Your task to perform on an android device: Open the map Image 0: 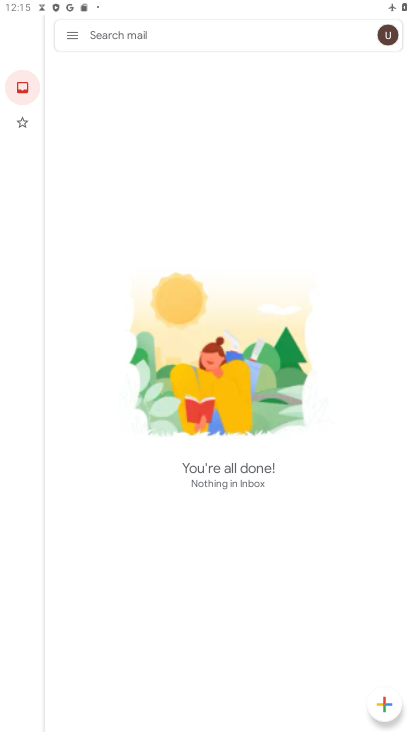
Step 0: press home button
Your task to perform on an android device: Open the map Image 1: 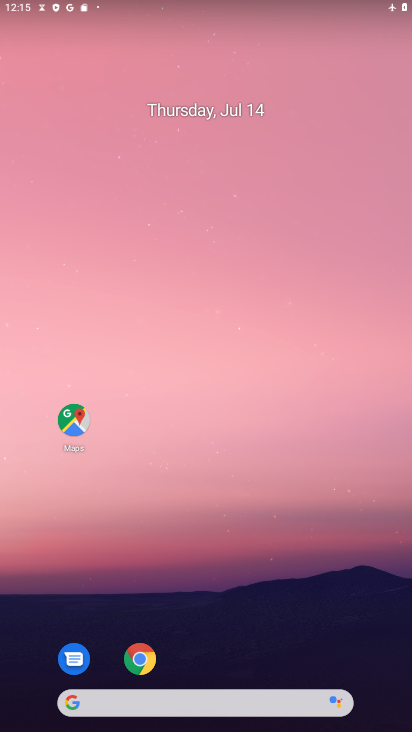
Step 1: click (75, 415)
Your task to perform on an android device: Open the map Image 2: 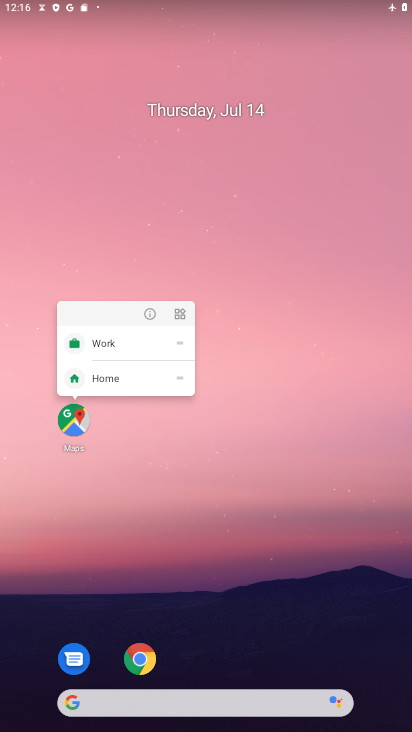
Step 2: click (67, 413)
Your task to perform on an android device: Open the map Image 3: 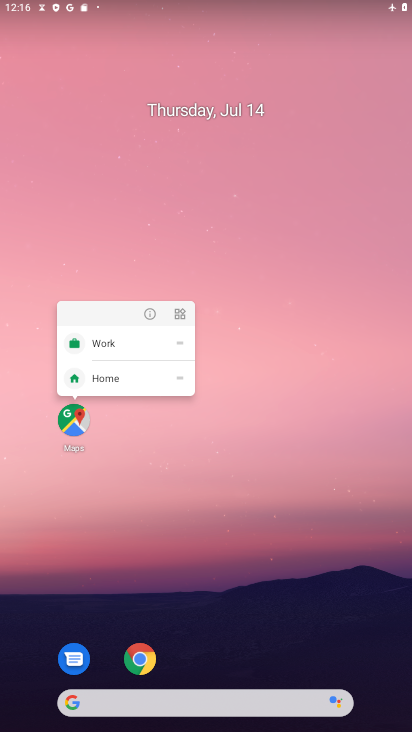
Step 3: task complete